Your task to perform on an android device: Open Wikipedia Image 0: 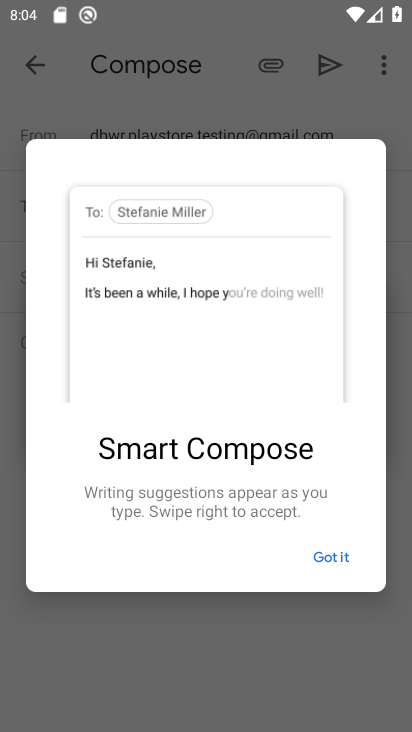
Step 0: press home button
Your task to perform on an android device: Open Wikipedia Image 1: 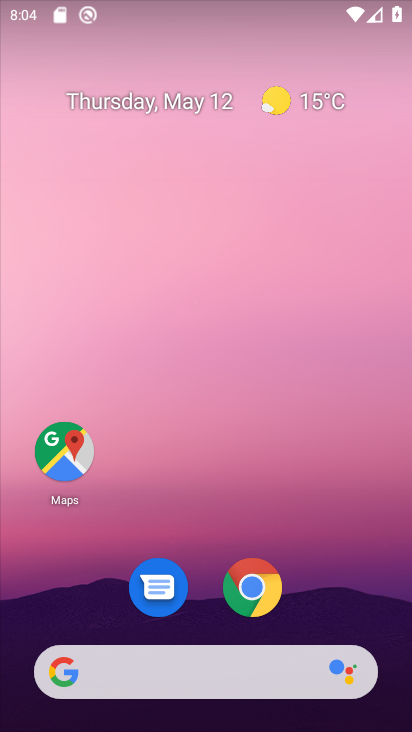
Step 1: drag from (355, 605) to (251, 53)
Your task to perform on an android device: Open Wikipedia Image 2: 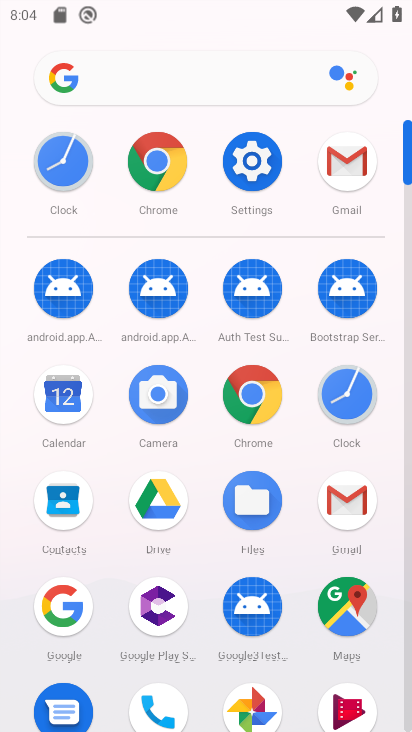
Step 2: click (166, 168)
Your task to perform on an android device: Open Wikipedia Image 3: 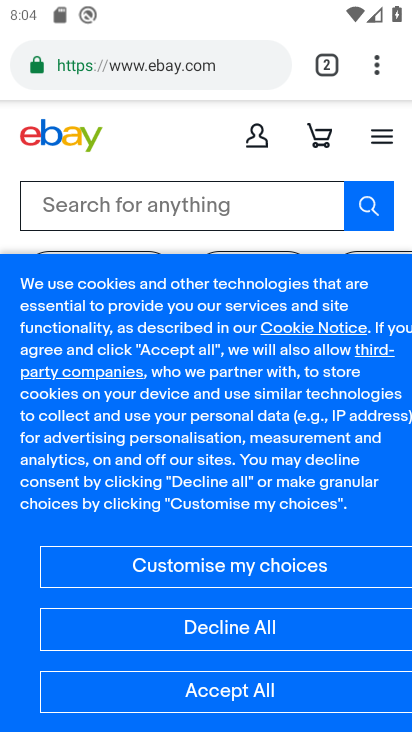
Step 3: press back button
Your task to perform on an android device: Open Wikipedia Image 4: 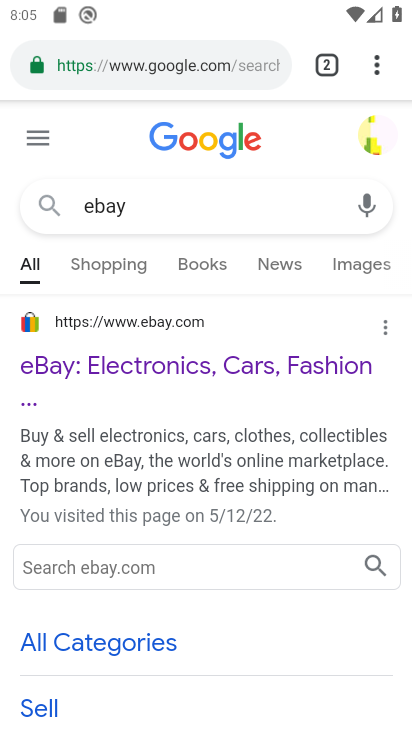
Step 4: press back button
Your task to perform on an android device: Open Wikipedia Image 5: 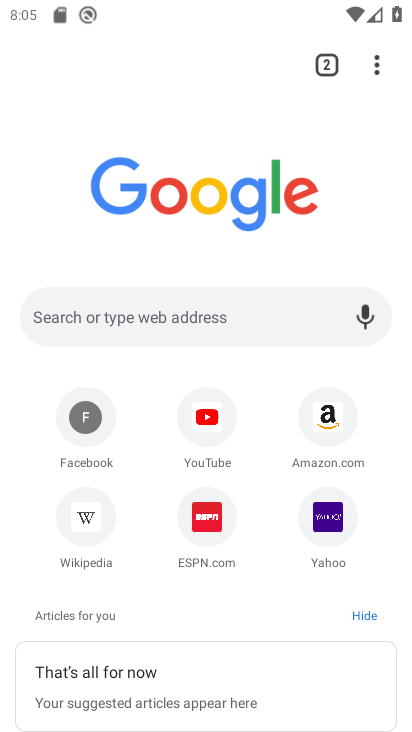
Step 5: click (77, 516)
Your task to perform on an android device: Open Wikipedia Image 6: 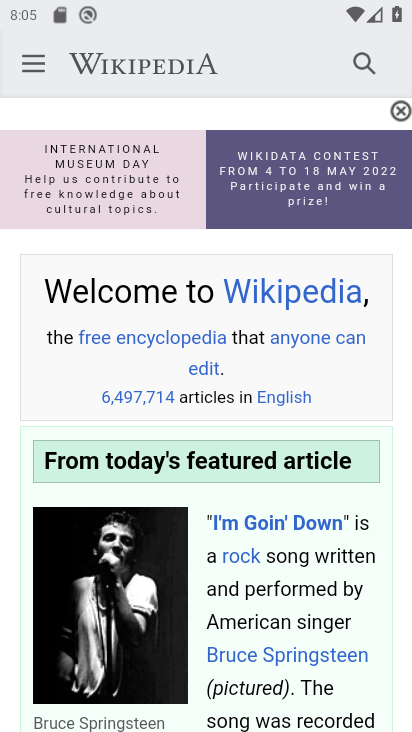
Step 6: task complete